Your task to perform on an android device: move an email to a new category in the gmail app Image 0: 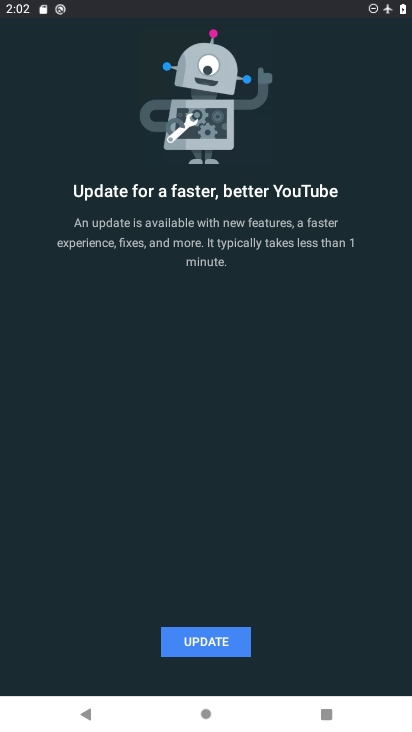
Step 0: press home button
Your task to perform on an android device: move an email to a new category in the gmail app Image 1: 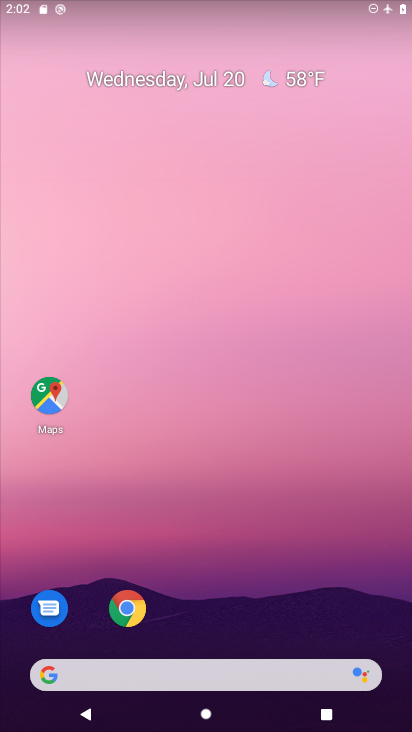
Step 1: drag from (268, 469) to (276, 228)
Your task to perform on an android device: move an email to a new category in the gmail app Image 2: 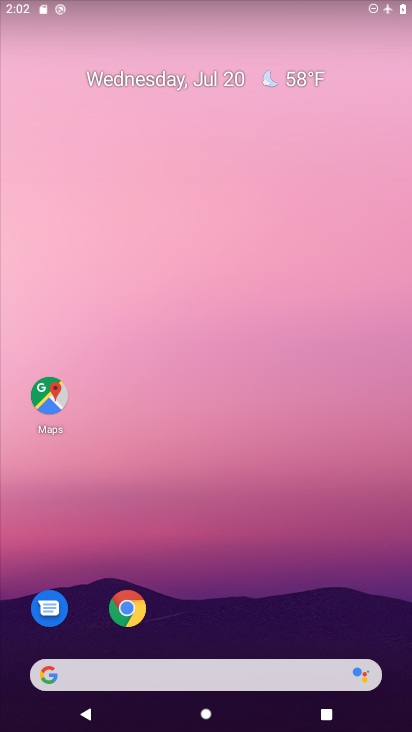
Step 2: drag from (227, 724) to (215, 111)
Your task to perform on an android device: move an email to a new category in the gmail app Image 3: 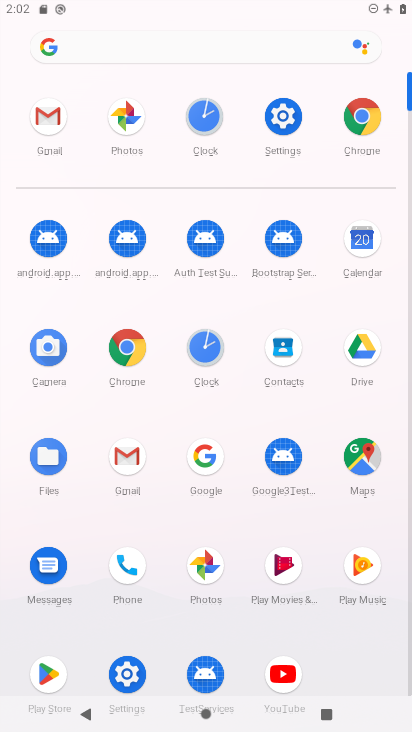
Step 3: click (118, 451)
Your task to perform on an android device: move an email to a new category in the gmail app Image 4: 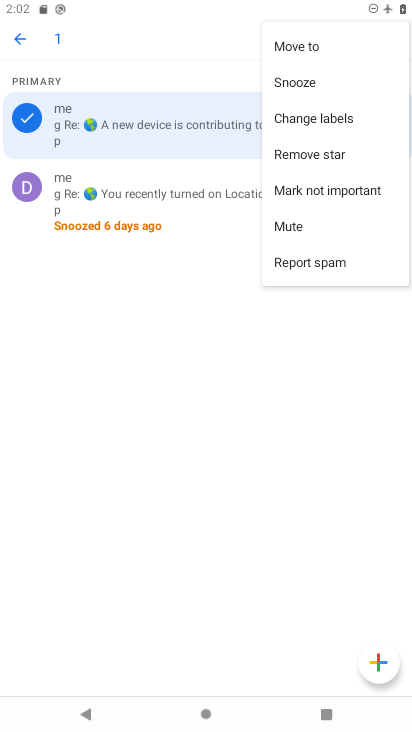
Step 4: click (299, 42)
Your task to perform on an android device: move an email to a new category in the gmail app Image 5: 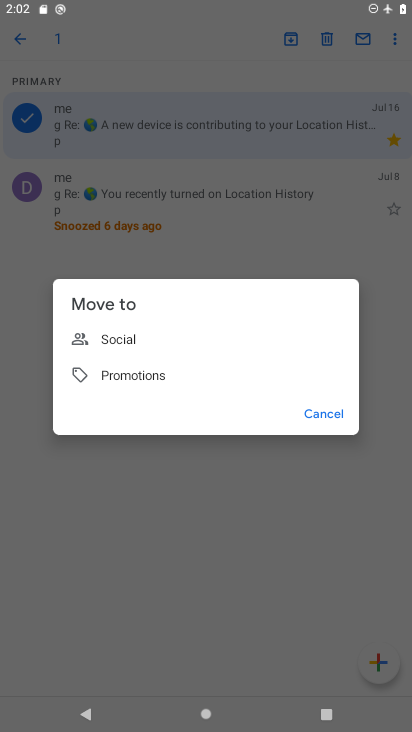
Step 5: click (122, 370)
Your task to perform on an android device: move an email to a new category in the gmail app Image 6: 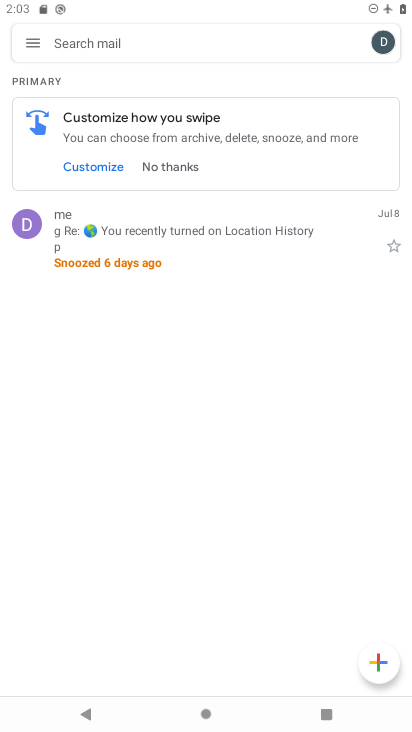
Step 6: task complete